Your task to perform on an android device: Turn off the flashlight Image 0: 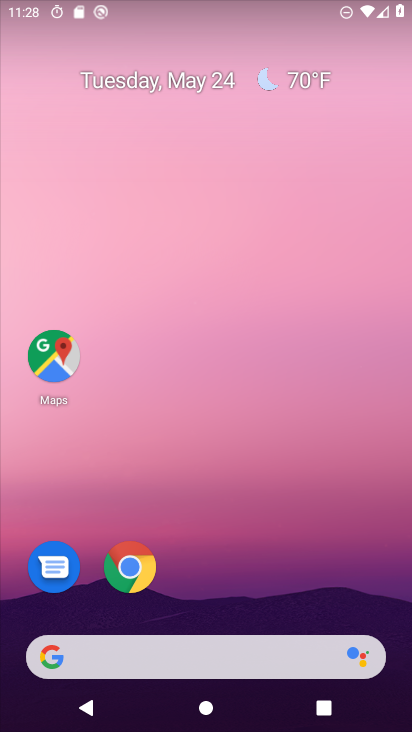
Step 0: drag from (387, 687) to (300, 366)
Your task to perform on an android device: Turn off the flashlight Image 1: 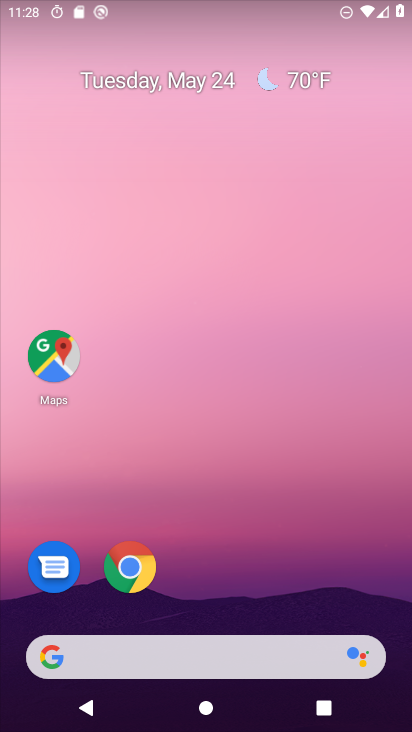
Step 1: drag from (404, 699) to (358, 247)
Your task to perform on an android device: Turn off the flashlight Image 2: 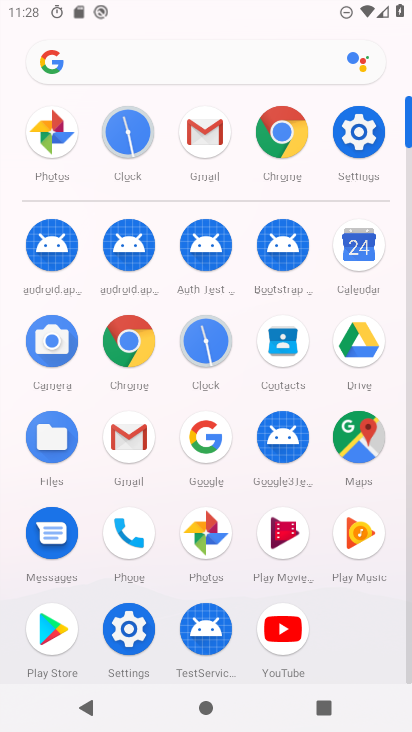
Step 2: click (369, 131)
Your task to perform on an android device: Turn off the flashlight Image 3: 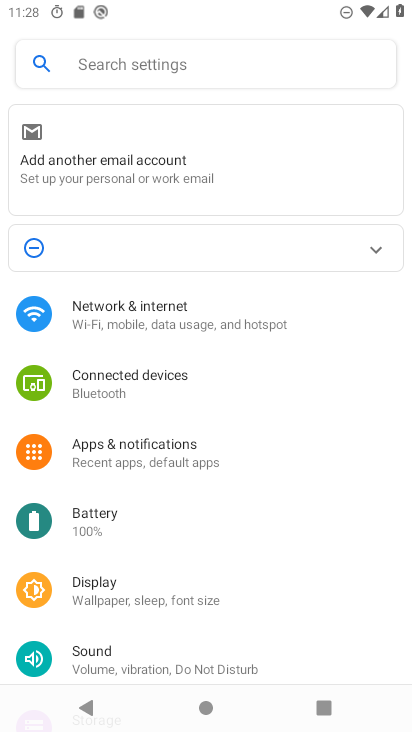
Step 3: click (122, 448)
Your task to perform on an android device: Turn off the flashlight Image 4: 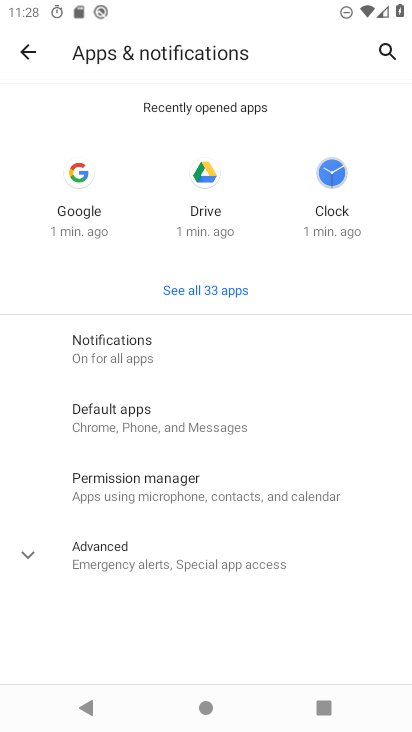
Step 4: click (31, 56)
Your task to perform on an android device: Turn off the flashlight Image 5: 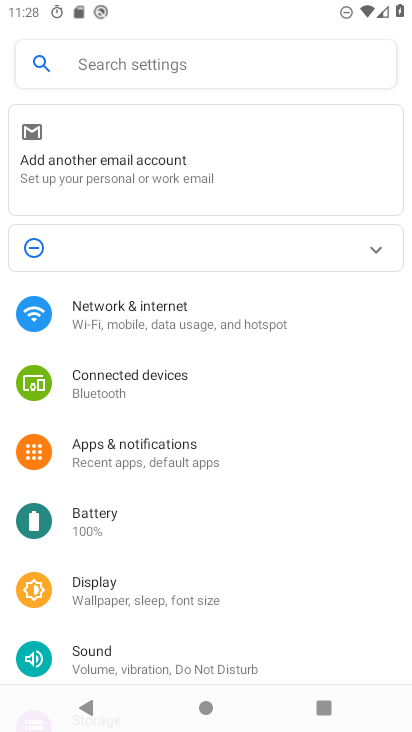
Step 5: click (111, 588)
Your task to perform on an android device: Turn off the flashlight Image 6: 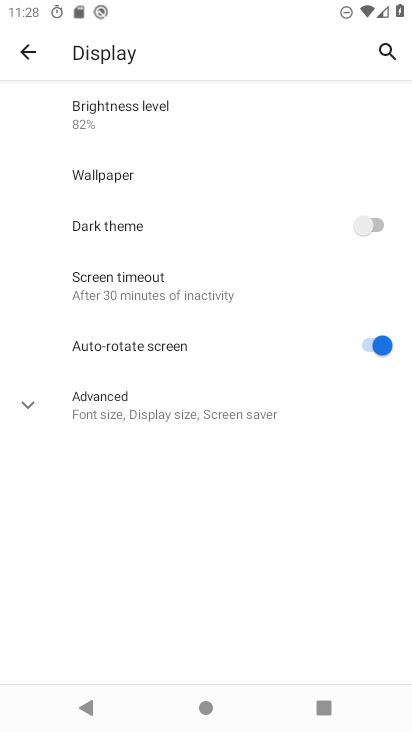
Step 6: task complete